Your task to perform on an android device: turn off location history Image 0: 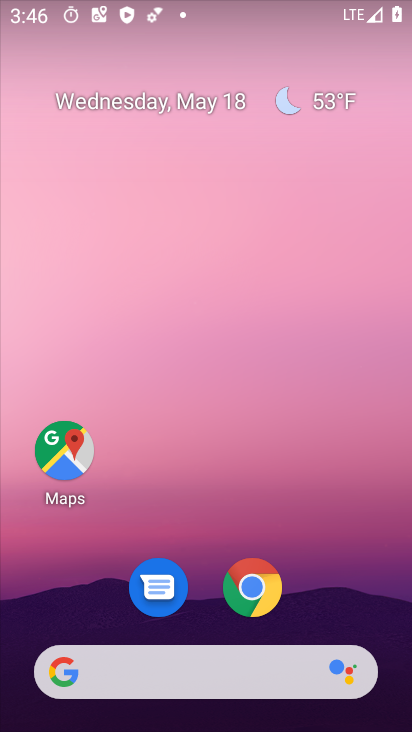
Step 0: drag from (232, 656) to (243, 192)
Your task to perform on an android device: turn off location history Image 1: 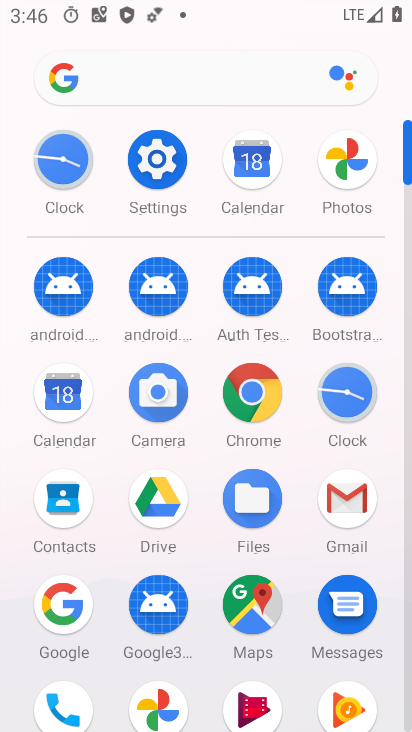
Step 1: click (168, 178)
Your task to perform on an android device: turn off location history Image 2: 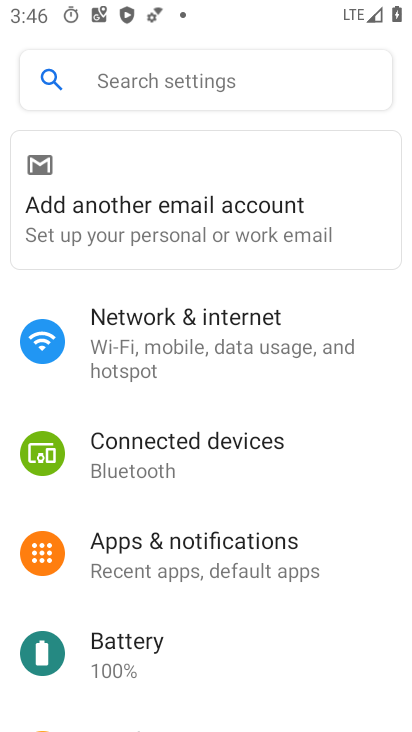
Step 2: drag from (222, 554) to (227, 281)
Your task to perform on an android device: turn off location history Image 3: 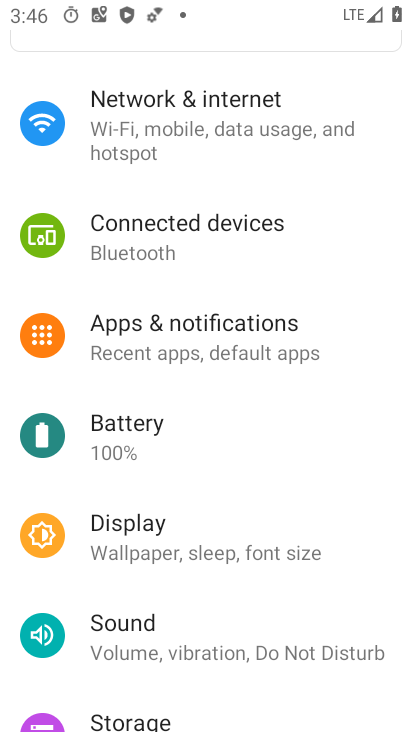
Step 3: drag from (203, 578) to (206, 326)
Your task to perform on an android device: turn off location history Image 4: 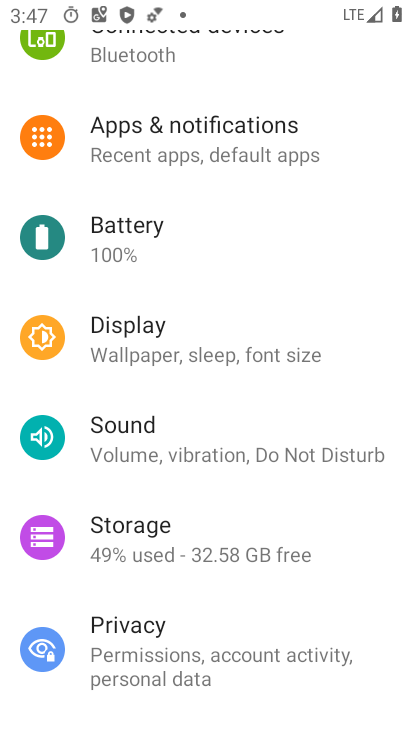
Step 4: drag from (187, 606) to (209, 247)
Your task to perform on an android device: turn off location history Image 5: 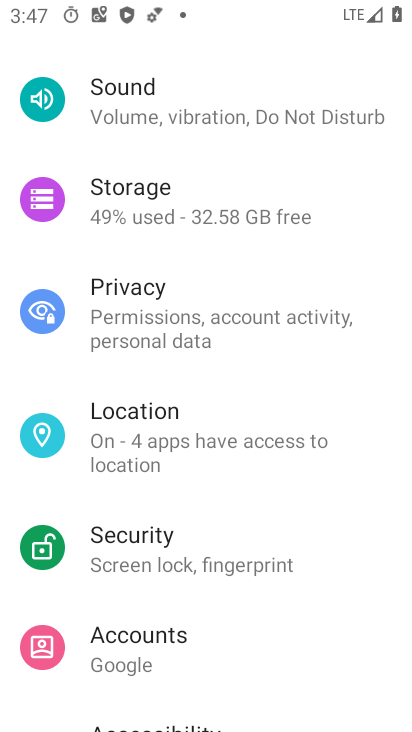
Step 5: click (203, 442)
Your task to perform on an android device: turn off location history Image 6: 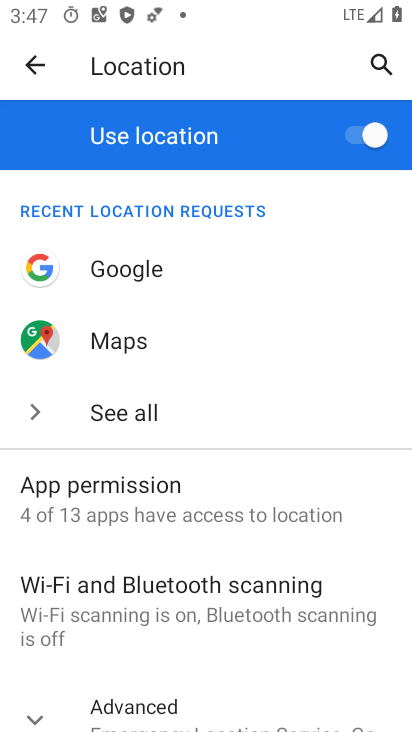
Step 6: drag from (173, 546) to (138, 337)
Your task to perform on an android device: turn off location history Image 7: 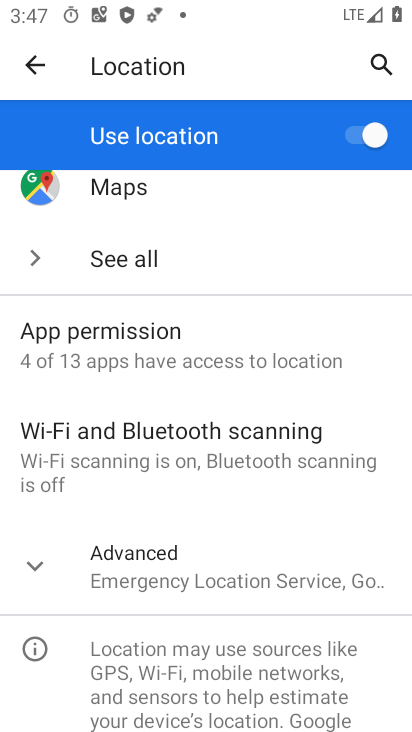
Step 7: click (164, 585)
Your task to perform on an android device: turn off location history Image 8: 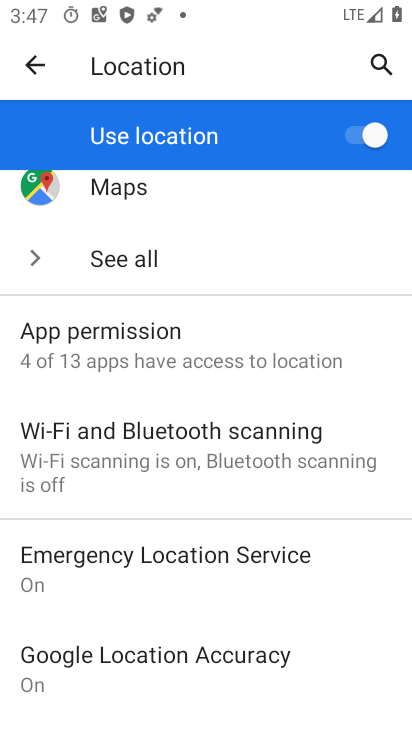
Step 8: drag from (195, 582) to (193, 313)
Your task to perform on an android device: turn off location history Image 9: 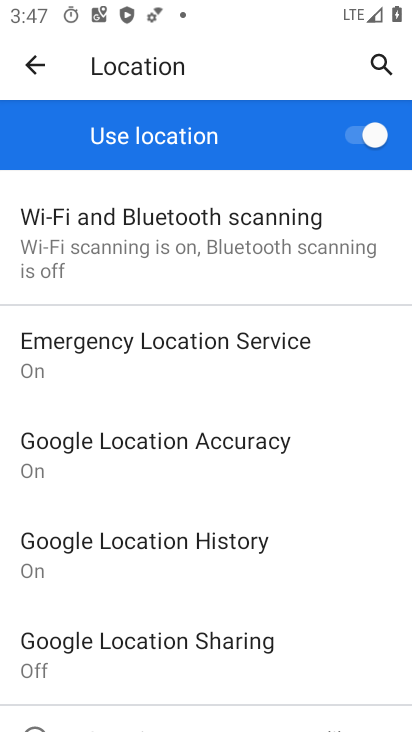
Step 9: click (200, 541)
Your task to perform on an android device: turn off location history Image 10: 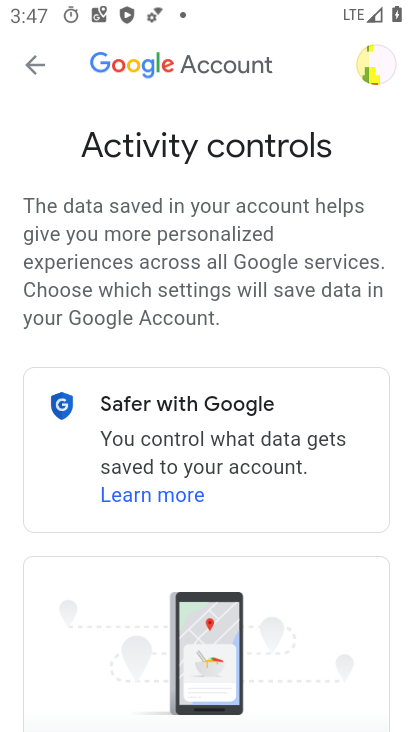
Step 10: drag from (219, 547) to (153, 170)
Your task to perform on an android device: turn off location history Image 11: 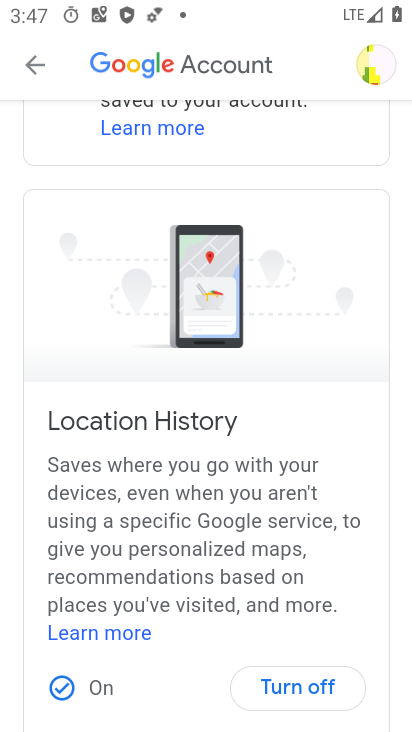
Step 11: click (301, 680)
Your task to perform on an android device: turn off location history Image 12: 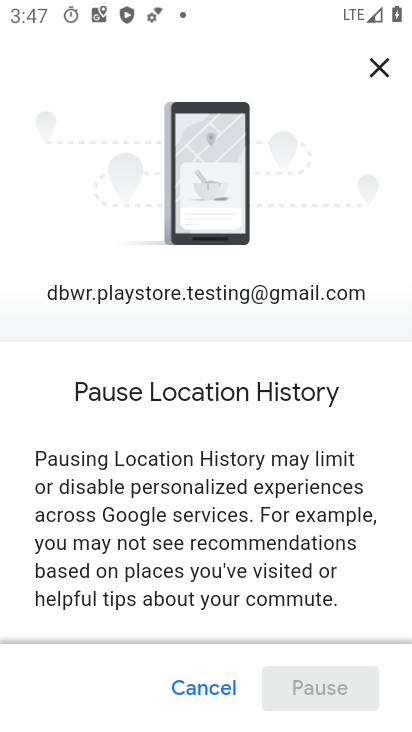
Step 12: drag from (254, 419) to (244, 73)
Your task to perform on an android device: turn off location history Image 13: 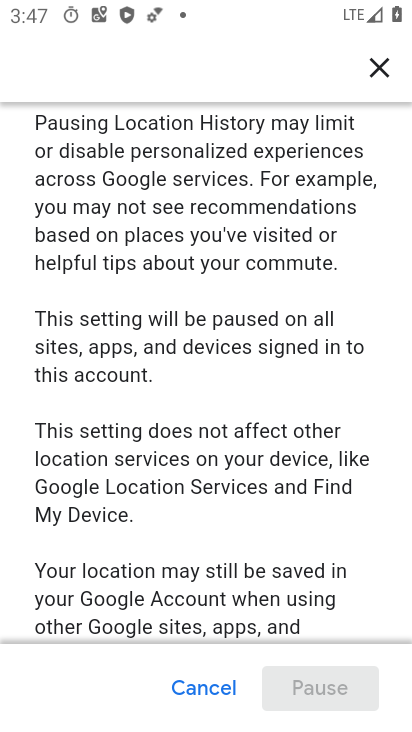
Step 13: drag from (261, 474) to (261, 124)
Your task to perform on an android device: turn off location history Image 14: 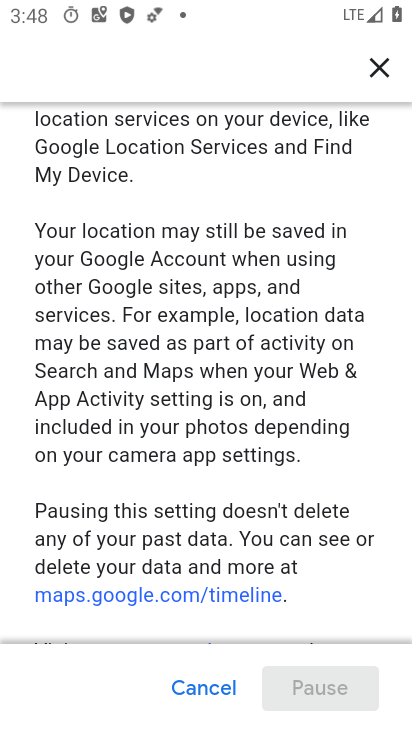
Step 14: drag from (261, 331) to (247, 24)
Your task to perform on an android device: turn off location history Image 15: 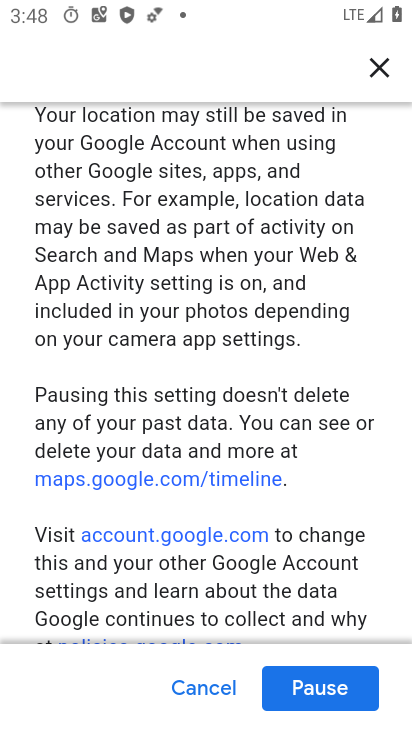
Step 15: click (328, 701)
Your task to perform on an android device: turn off location history Image 16: 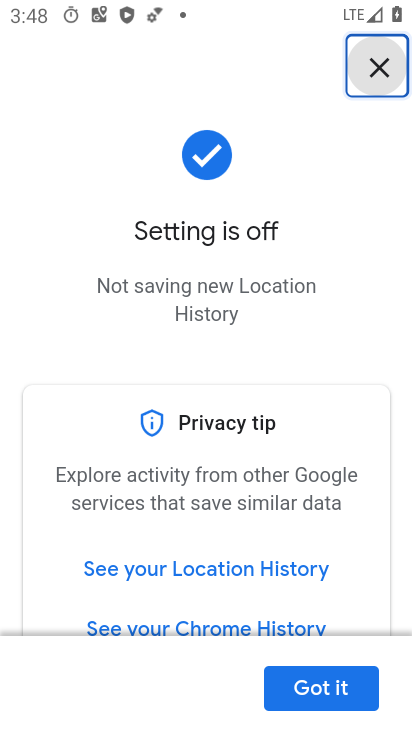
Step 16: click (317, 699)
Your task to perform on an android device: turn off location history Image 17: 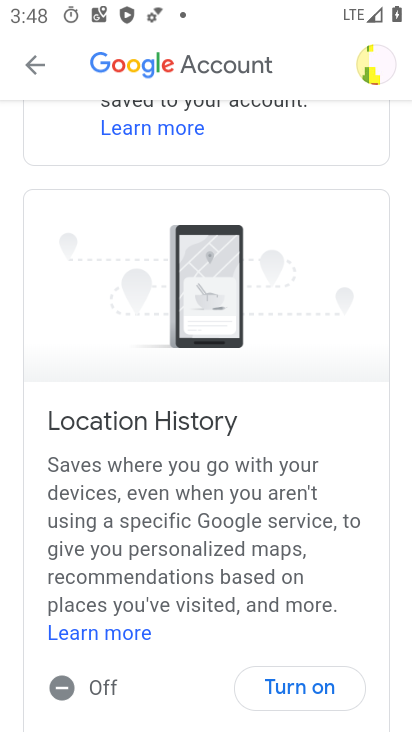
Step 17: task complete